Your task to perform on an android device: Go to battery settings Image 0: 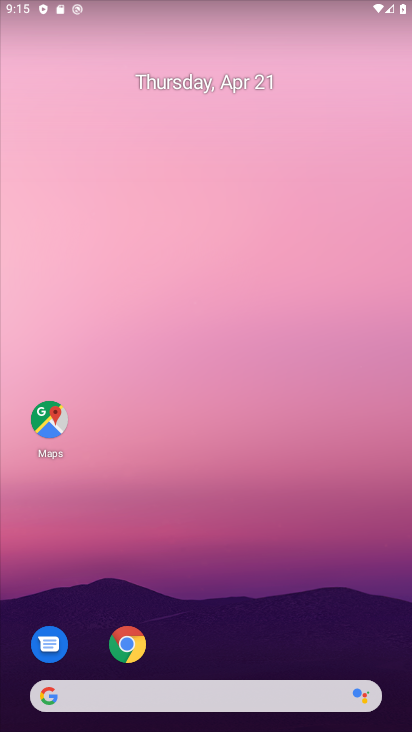
Step 0: drag from (246, 533) to (304, 21)
Your task to perform on an android device: Go to battery settings Image 1: 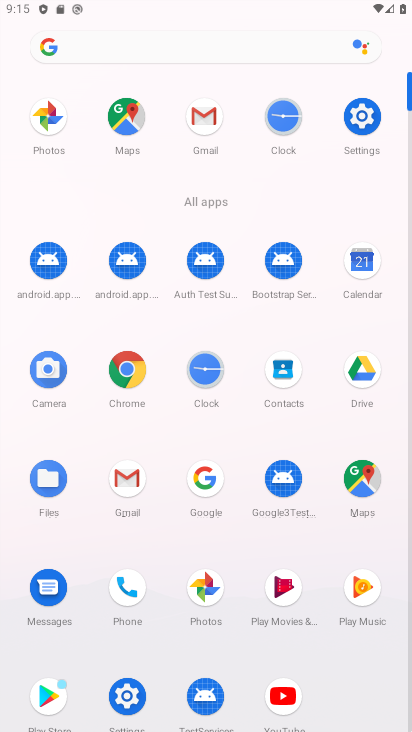
Step 1: click (358, 112)
Your task to perform on an android device: Go to battery settings Image 2: 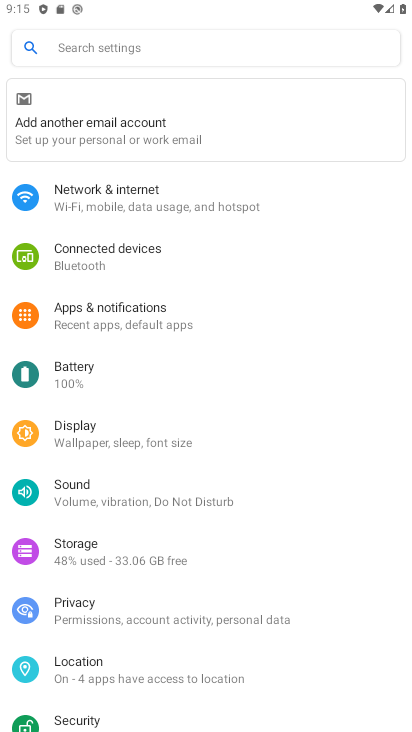
Step 2: click (109, 361)
Your task to perform on an android device: Go to battery settings Image 3: 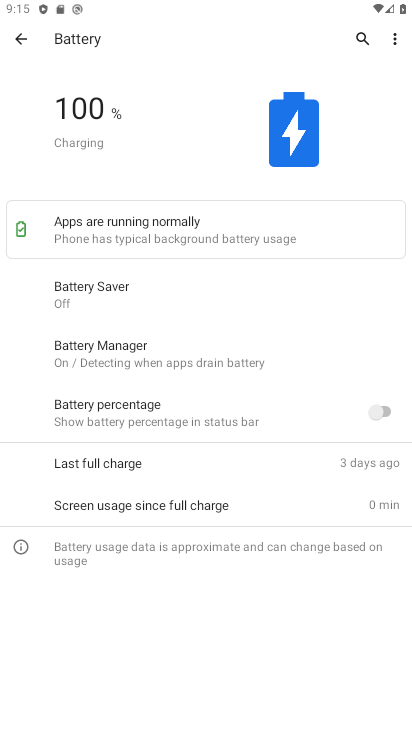
Step 3: task complete